Your task to perform on an android device: set an alarm Image 0: 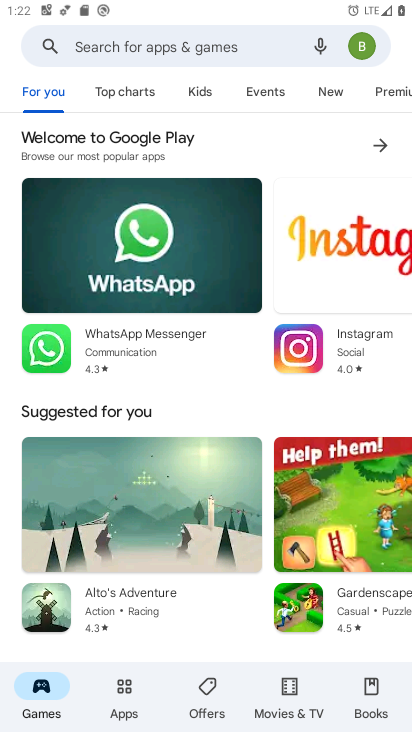
Step 0: press home button
Your task to perform on an android device: set an alarm Image 1: 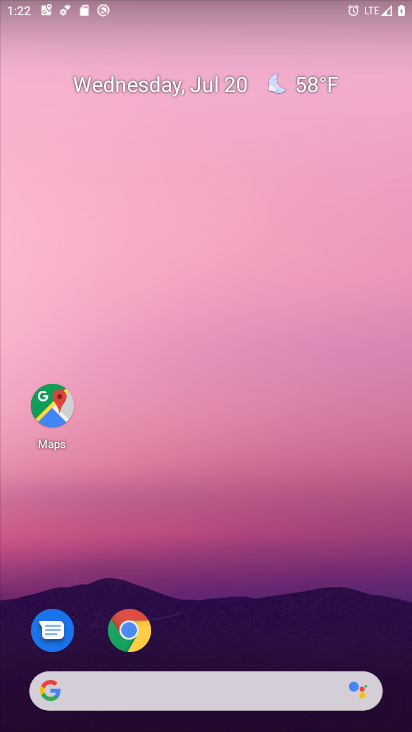
Step 1: drag from (273, 627) to (296, 210)
Your task to perform on an android device: set an alarm Image 2: 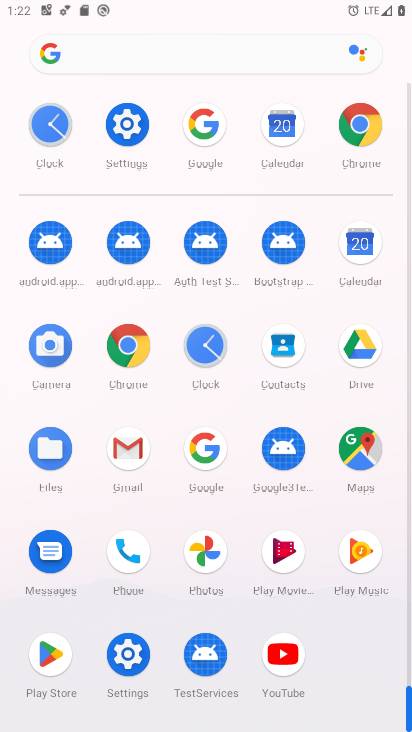
Step 2: click (210, 375)
Your task to perform on an android device: set an alarm Image 3: 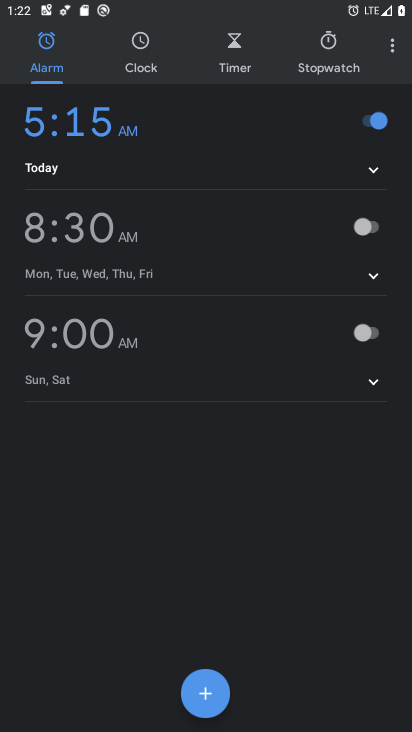
Step 3: click (216, 683)
Your task to perform on an android device: set an alarm Image 4: 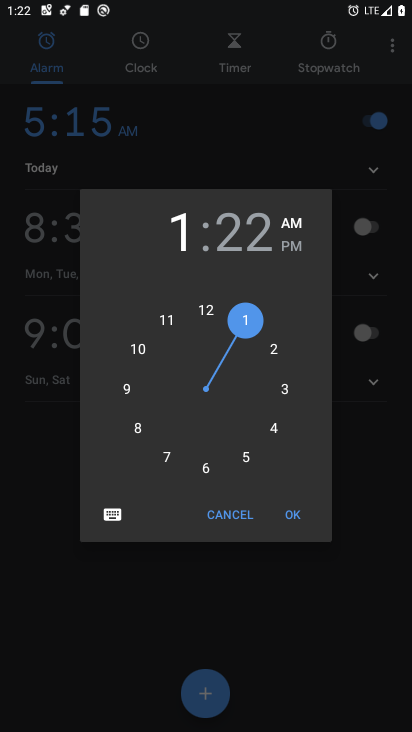
Step 4: click (299, 520)
Your task to perform on an android device: set an alarm Image 5: 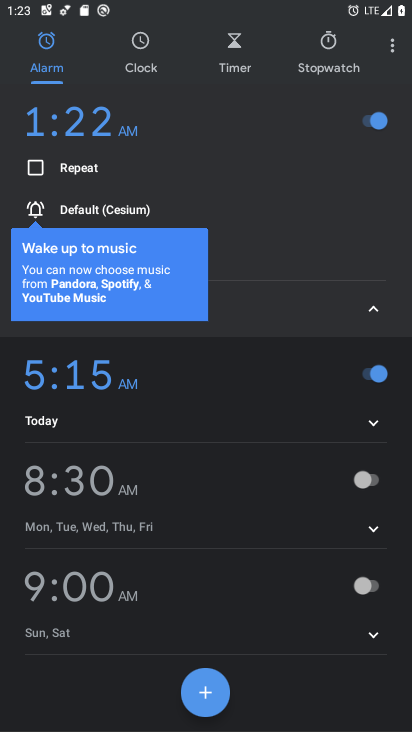
Step 5: task complete